Your task to perform on an android device: change the clock display to digital Image 0: 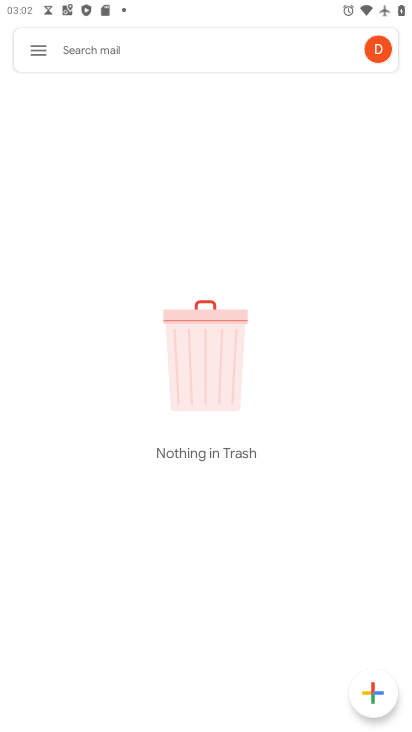
Step 0: press home button
Your task to perform on an android device: change the clock display to digital Image 1: 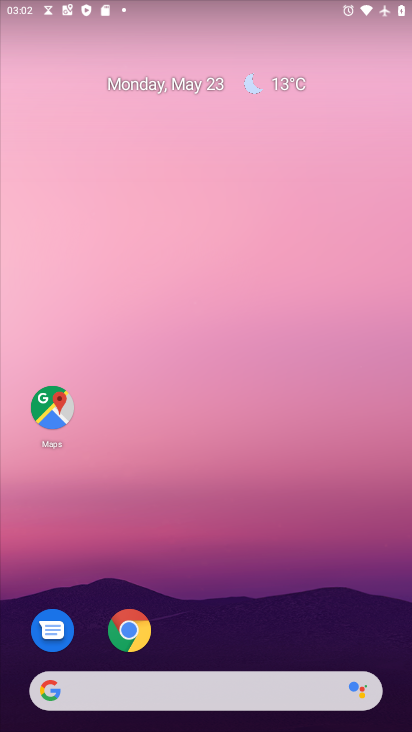
Step 1: drag from (312, 589) to (218, 34)
Your task to perform on an android device: change the clock display to digital Image 2: 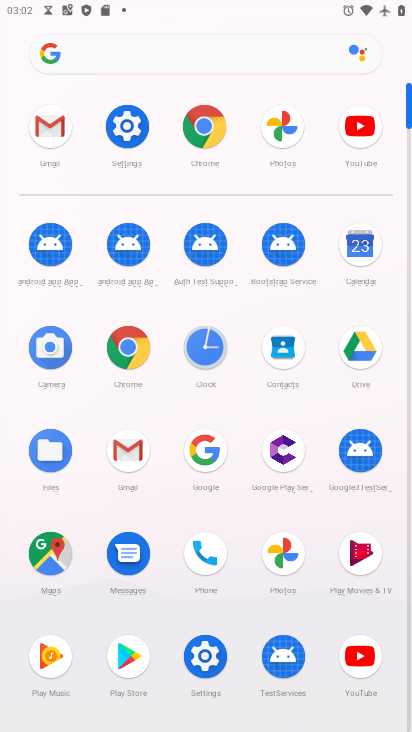
Step 2: click (208, 349)
Your task to perform on an android device: change the clock display to digital Image 3: 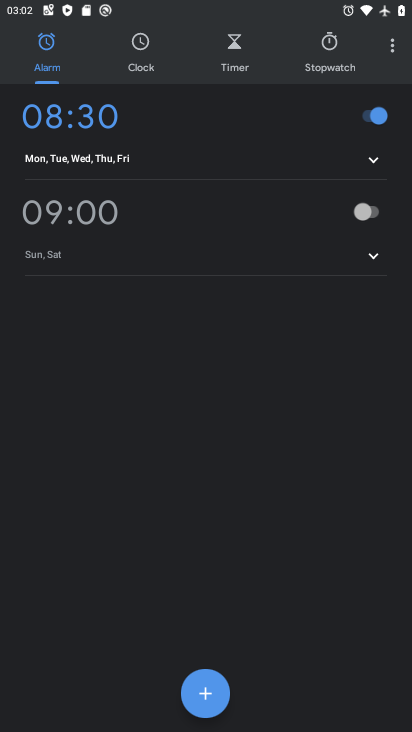
Step 3: click (385, 44)
Your task to perform on an android device: change the clock display to digital Image 4: 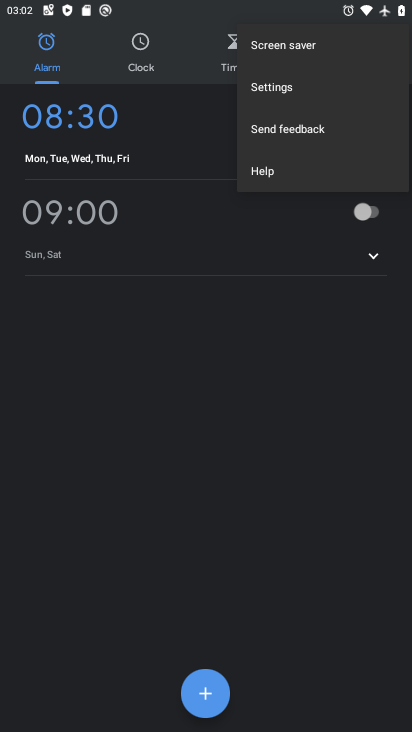
Step 4: click (283, 92)
Your task to perform on an android device: change the clock display to digital Image 5: 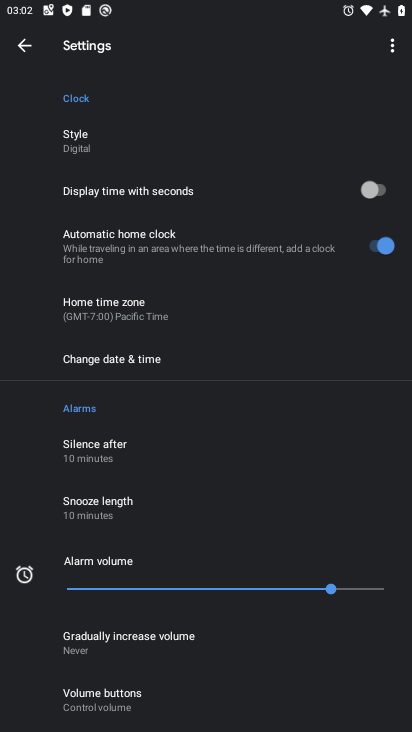
Step 5: click (174, 138)
Your task to perform on an android device: change the clock display to digital Image 6: 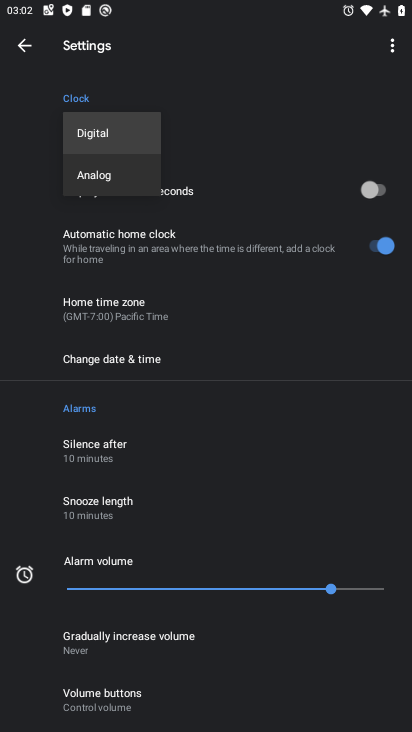
Step 6: click (148, 140)
Your task to perform on an android device: change the clock display to digital Image 7: 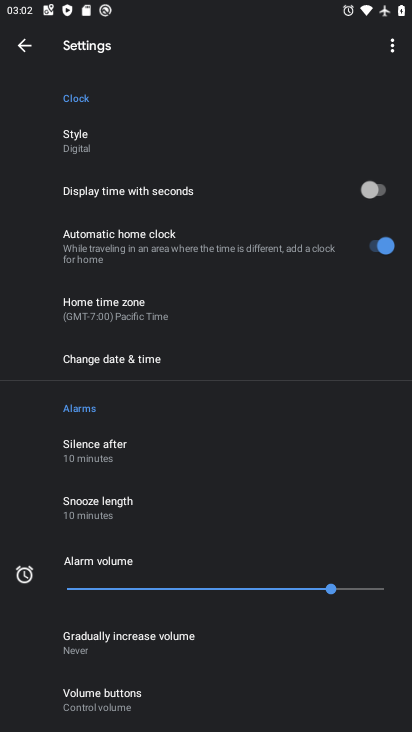
Step 7: task complete